Your task to perform on an android device: turn off airplane mode Image 0: 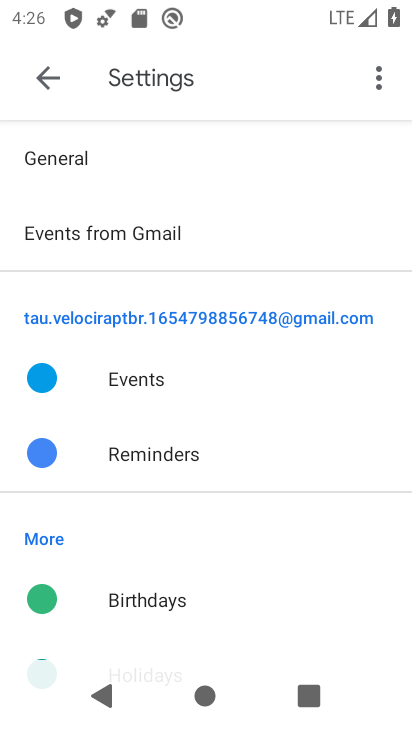
Step 0: press home button
Your task to perform on an android device: turn off airplane mode Image 1: 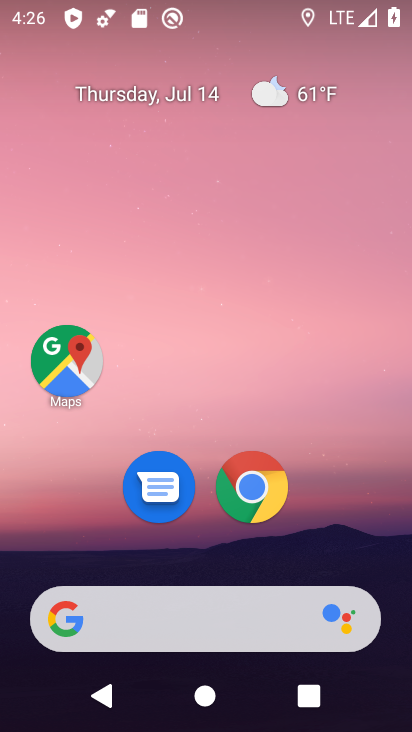
Step 1: drag from (383, 527) to (253, 67)
Your task to perform on an android device: turn off airplane mode Image 2: 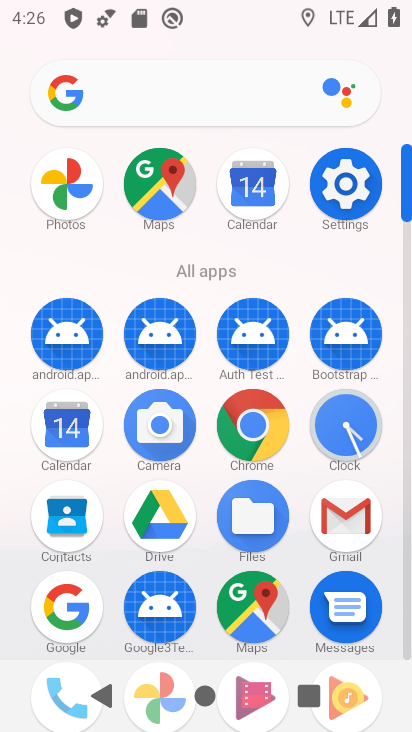
Step 2: click (335, 183)
Your task to perform on an android device: turn off airplane mode Image 3: 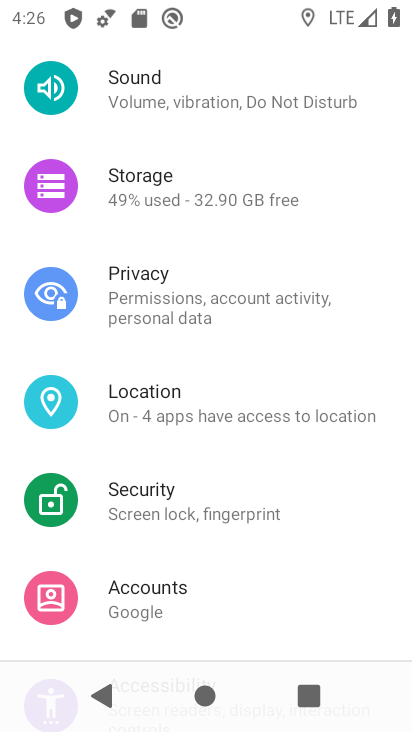
Step 3: drag from (241, 143) to (262, 401)
Your task to perform on an android device: turn off airplane mode Image 4: 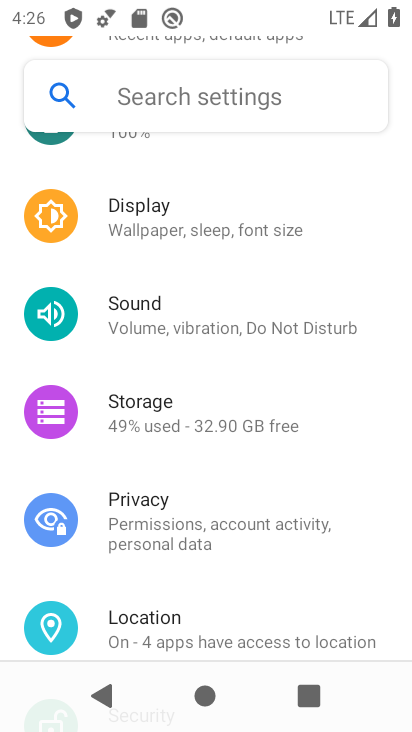
Step 4: drag from (221, 167) to (250, 579)
Your task to perform on an android device: turn off airplane mode Image 5: 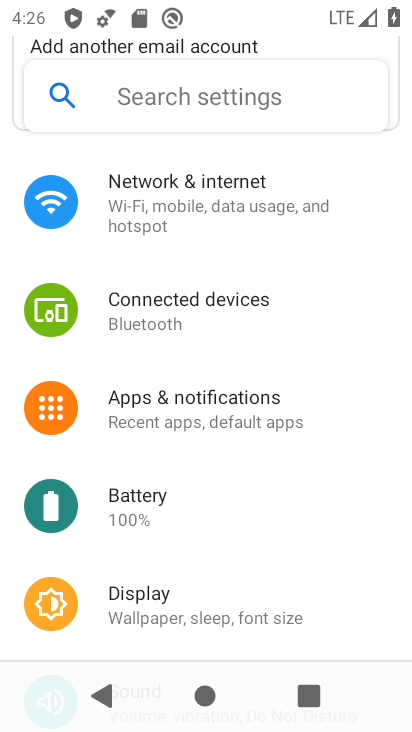
Step 5: click (207, 201)
Your task to perform on an android device: turn off airplane mode Image 6: 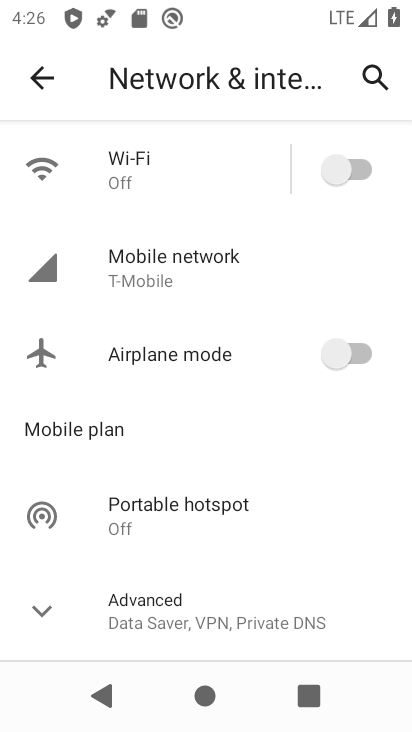
Step 6: task complete